Your task to perform on an android device: delete the emails in spam in the gmail app Image 0: 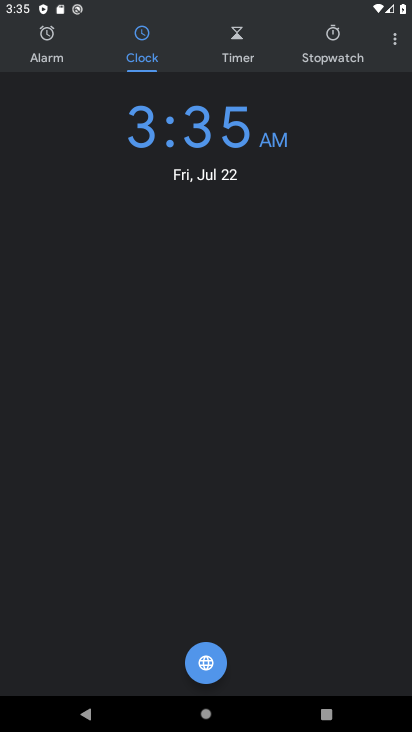
Step 0: press home button
Your task to perform on an android device: delete the emails in spam in the gmail app Image 1: 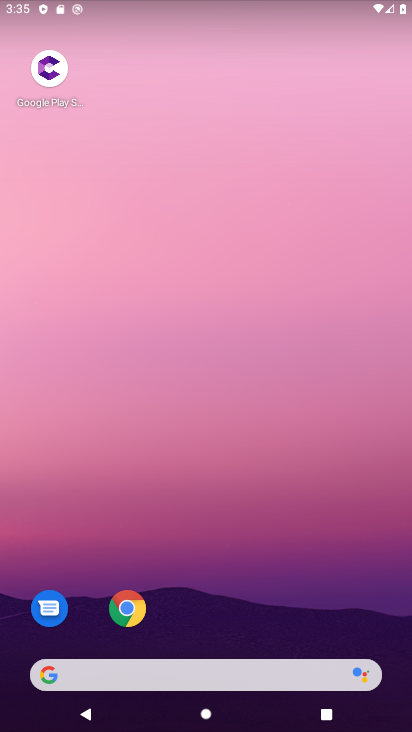
Step 1: drag from (243, 725) to (240, 222)
Your task to perform on an android device: delete the emails in spam in the gmail app Image 2: 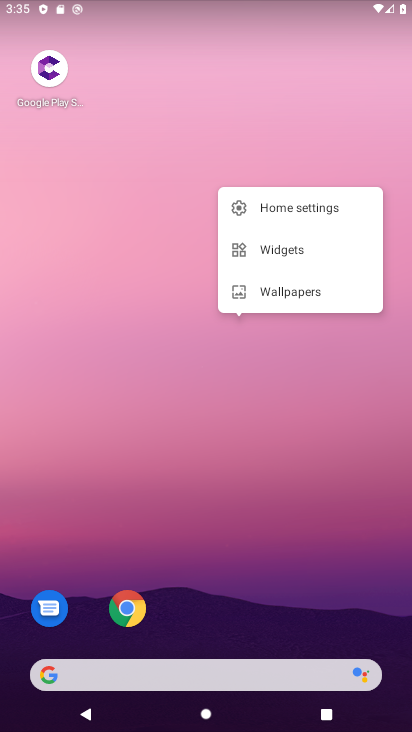
Step 2: click (301, 477)
Your task to perform on an android device: delete the emails in spam in the gmail app Image 3: 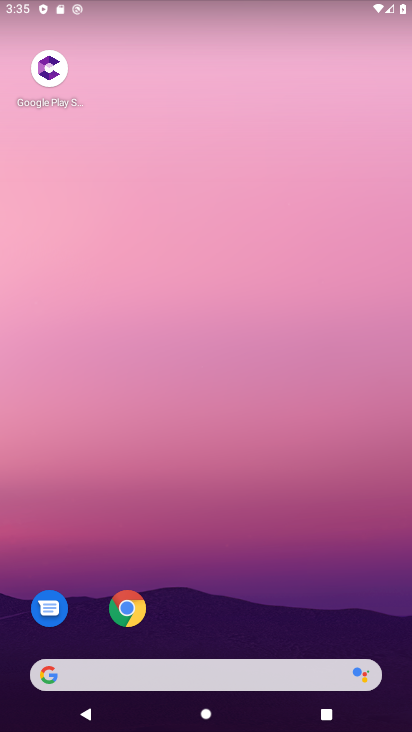
Step 3: drag from (239, 680) to (202, 192)
Your task to perform on an android device: delete the emails in spam in the gmail app Image 4: 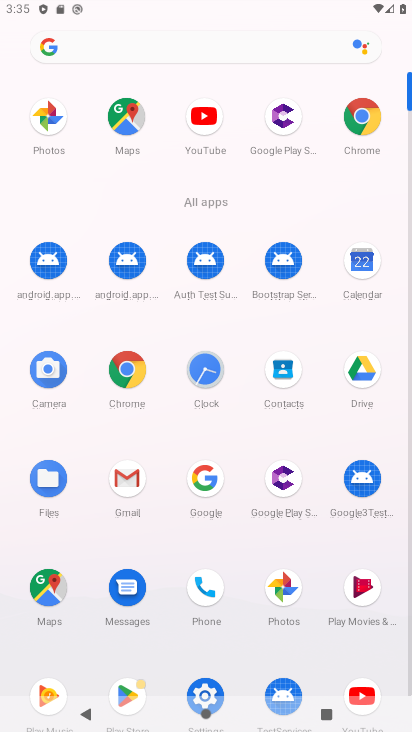
Step 4: click (124, 478)
Your task to perform on an android device: delete the emails in spam in the gmail app Image 5: 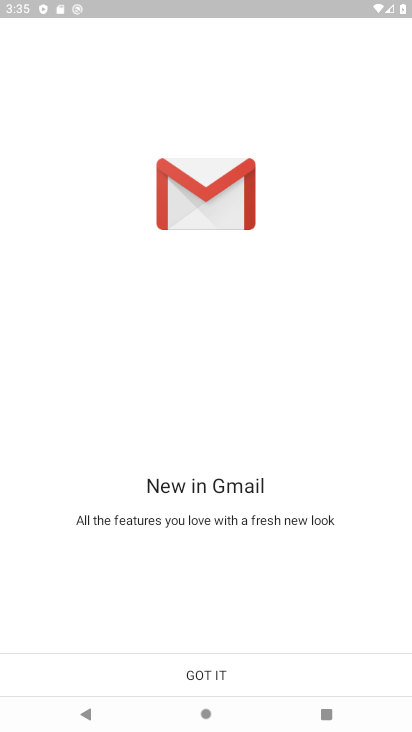
Step 5: click (199, 671)
Your task to perform on an android device: delete the emails in spam in the gmail app Image 6: 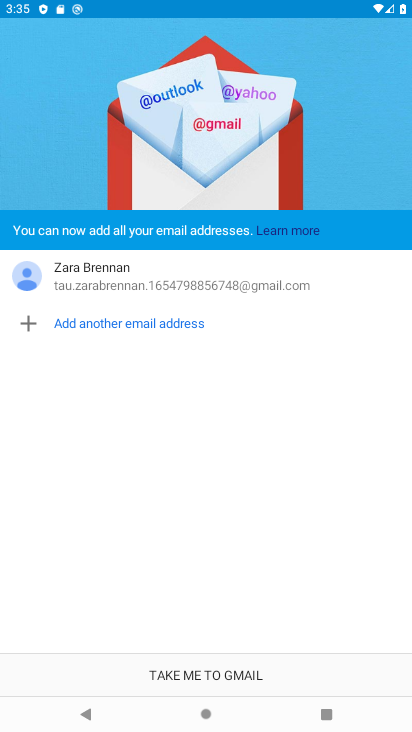
Step 6: click (199, 671)
Your task to perform on an android device: delete the emails in spam in the gmail app Image 7: 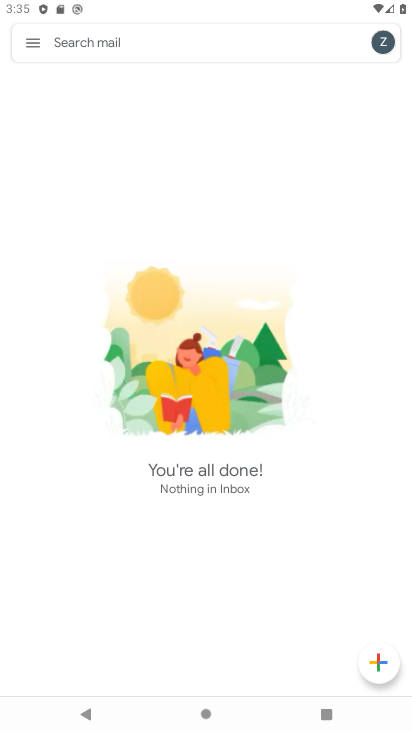
Step 7: click (33, 38)
Your task to perform on an android device: delete the emails in spam in the gmail app Image 8: 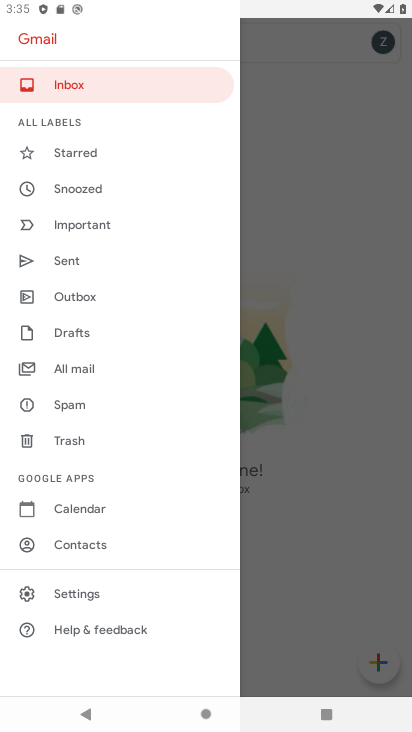
Step 8: click (74, 401)
Your task to perform on an android device: delete the emails in spam in the gmail app Image 9: 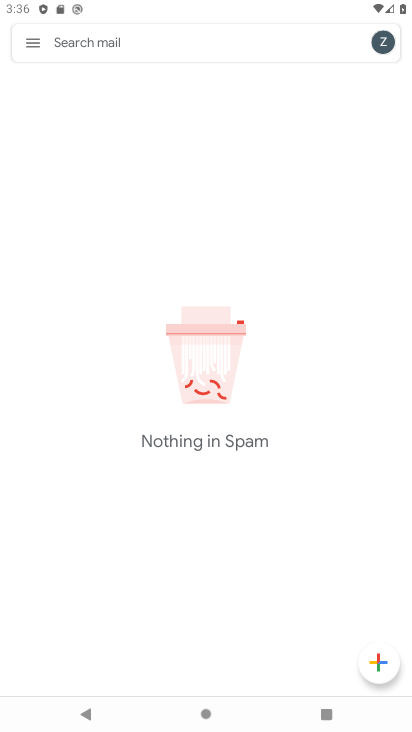
Step 9: task complete